Your task to perform on an android device: turn pop-ups on in chrome Image 0: 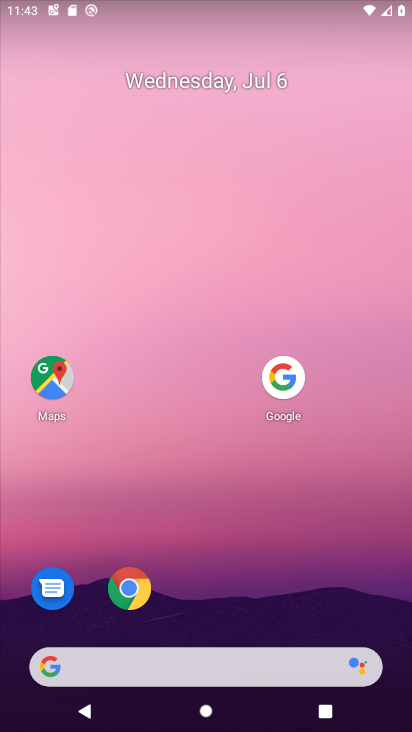
Step 0: click (133, 583)
Your task to perform on an android device: turn pop-ups on in chrome Image 1: 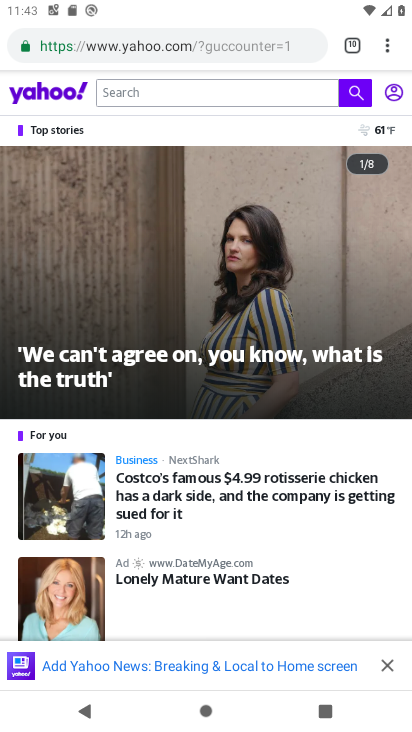
Step 1: click (386, 64)
Your task to perform on an android device: turn pop-ups on in chrome Image 2: 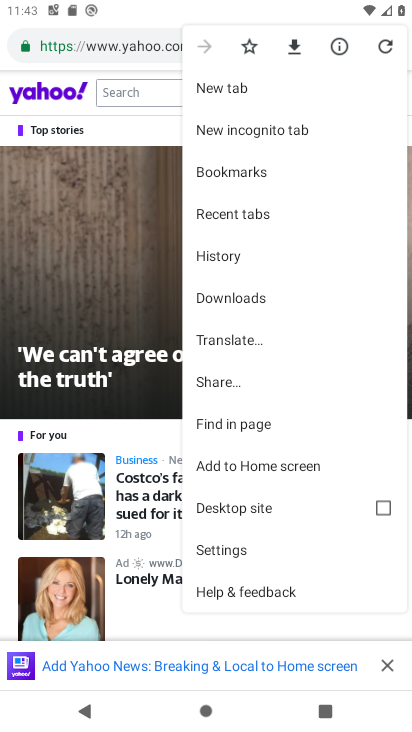
Step 2: click (206, 547)
Your task to perform on an android device: turn pop-ups on in chrome Image 3: 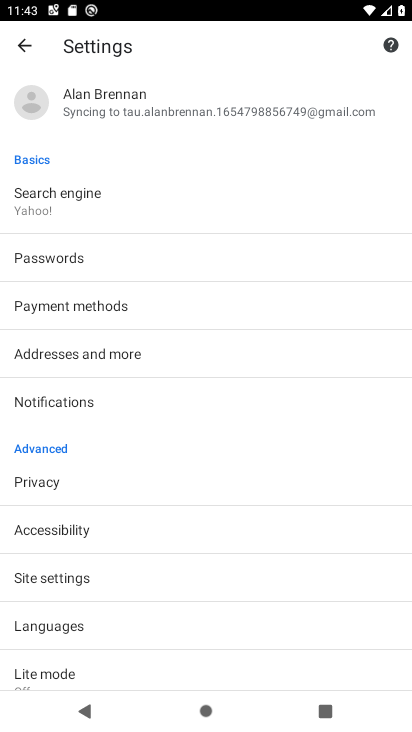
Step 3: click (93, 573)
Your task to perform on an android device: turn pop-ups on in chrome Image 4: 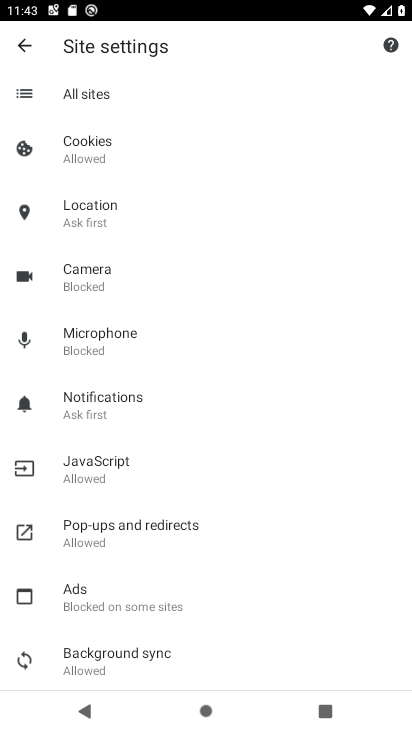
Step 4: click (122, 528)
Your task to perform on an android device: turn pop-ups on in chrome Image 5: 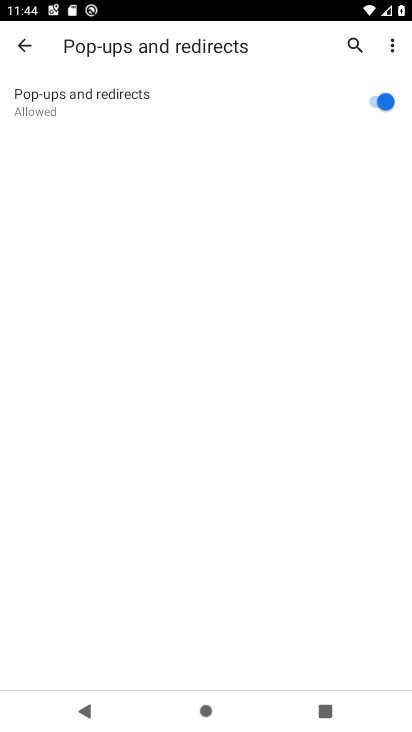
Step 5: task complete